Your task to perform on an android device: toggle translation in the chrome app Image 0: 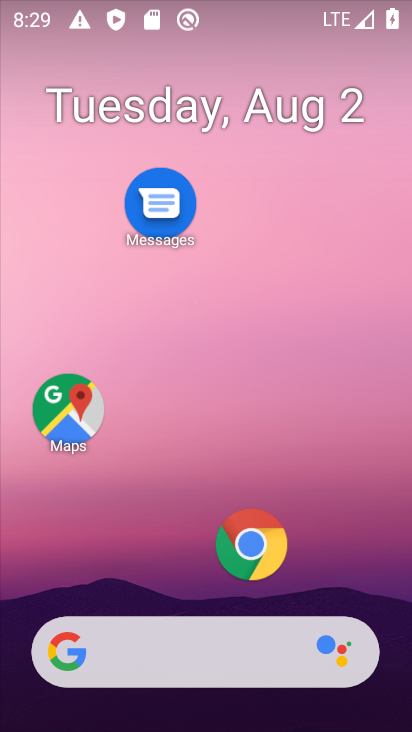
Step 0: click (258, 538)
Your task to perform on an android device: toggle translation in the chrome app Image 1: 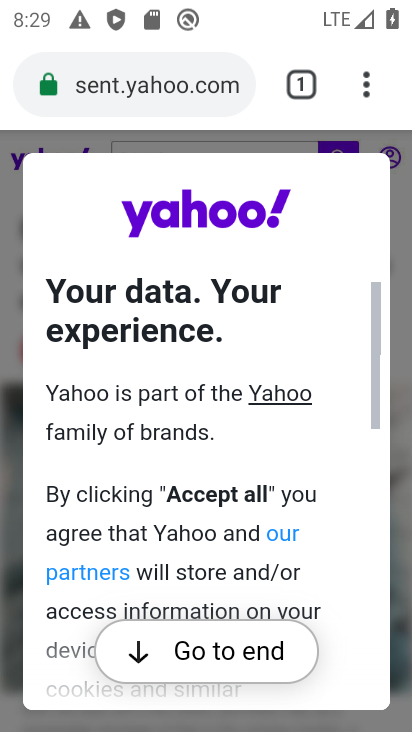
Step 1: click (357, 98)
Your task to perform on an android device: toggle translation in the chrome app Image 2: 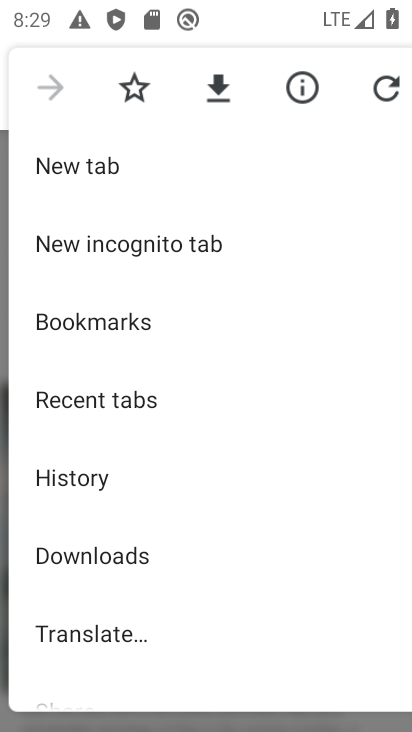
Step 2: drag from (156, 614) to (156, 311)
Your task to perform on an android device: toggle translation in the chrome app Image 3: 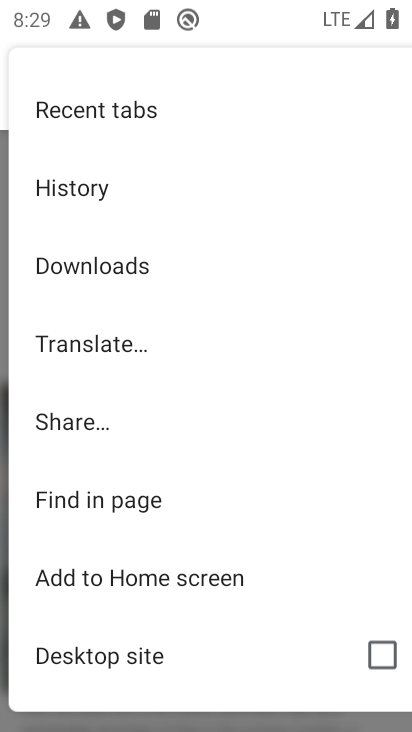
Step 3: drag from (147, 618) to (202, 288)
Your task to perform on an android device: toggle translation in the chrome app Image 4: 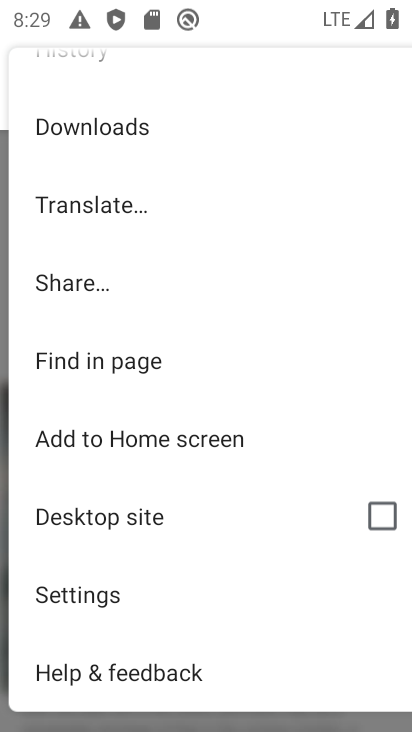
Step 4: click (152, 586)
Your task to perform on an android device: toggle translation in the chrome app Image 5: 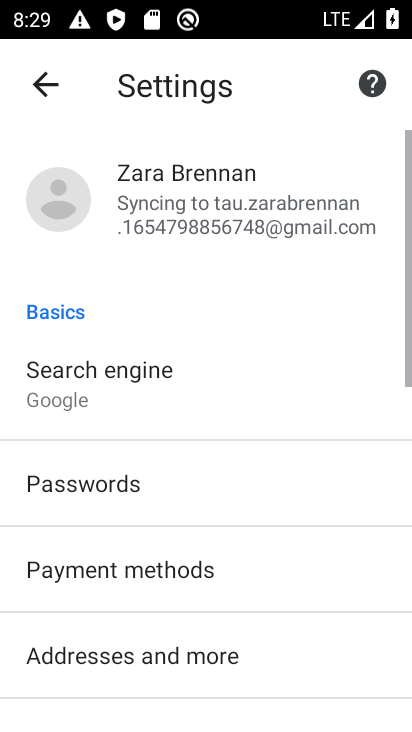
Step 5: drag from (152, 586) to (211, 221)
Your task to perform on an android device: toggle translation in the chrome app Image 6: 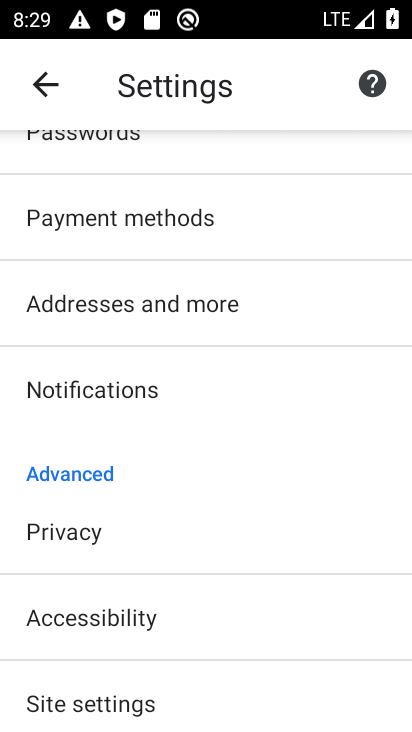
Step 6: drag from (170, 624) to (159, 272)
Your task to perform on an android device: toggle translation in the chrome app Image 7: 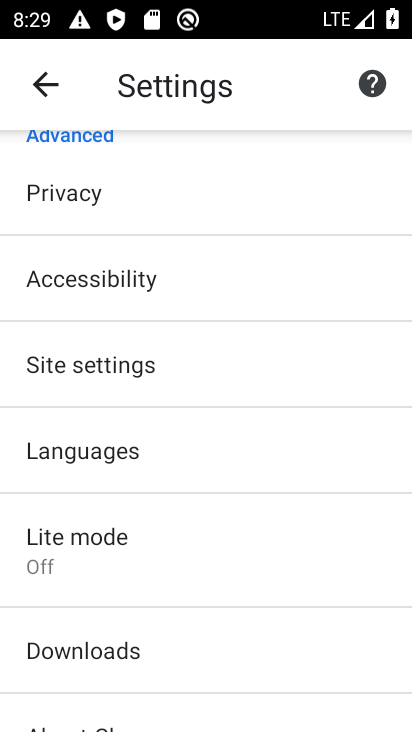
Step 7: click (146, 465)
Your task to perform on an android device: toggle translation in the chrome app Image 8: 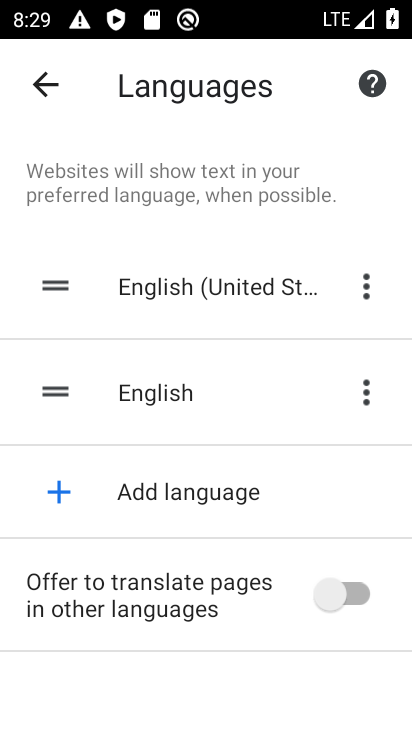
Step 8: click (346, 591)
Your task to perform on an android device: toggle translation in the chrome app Image 9: 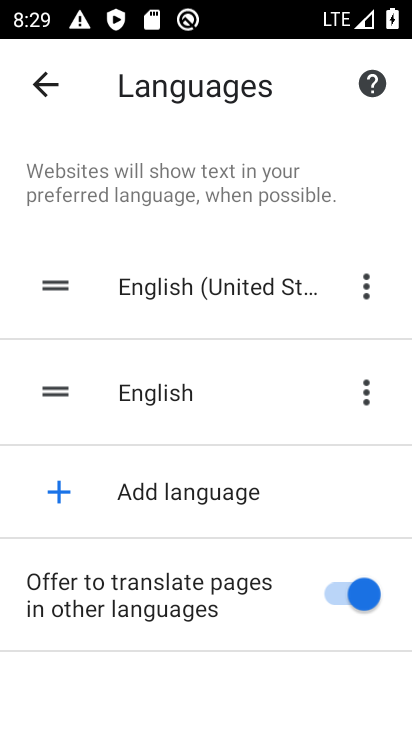
Step 9: task complete